Your task to perform on an android device: make emails show in primary in the gmail app Image 0: 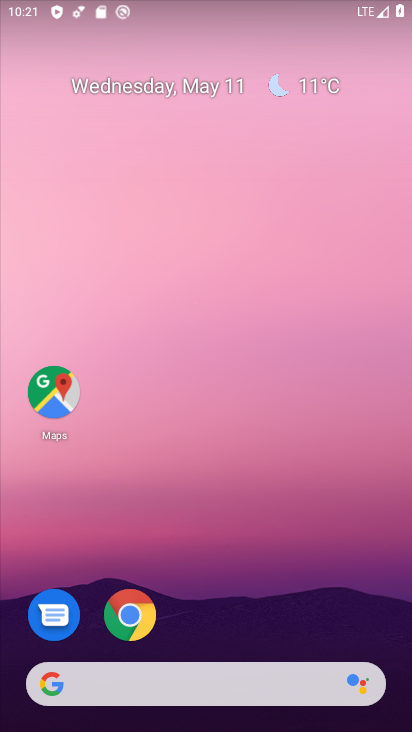
Step 0: drag from (230, 594) to (292, 51)
Your task to perform on an android device: make emails show in primary in the gmail app Image 1: 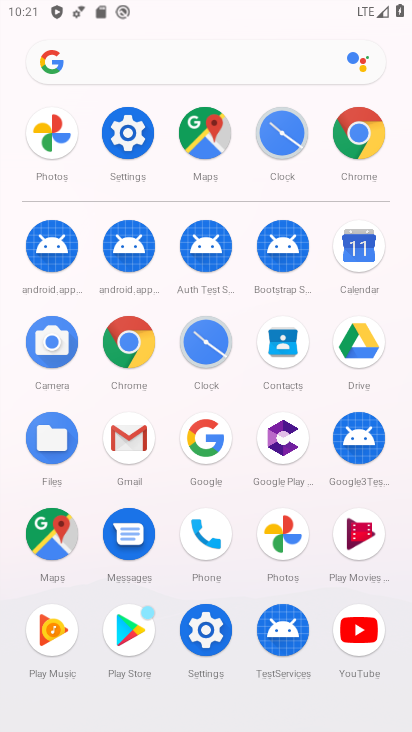
Step 1: click (131, 427)
Your task to perform on an android device: make emails show in primary in the gmail app Image 2: 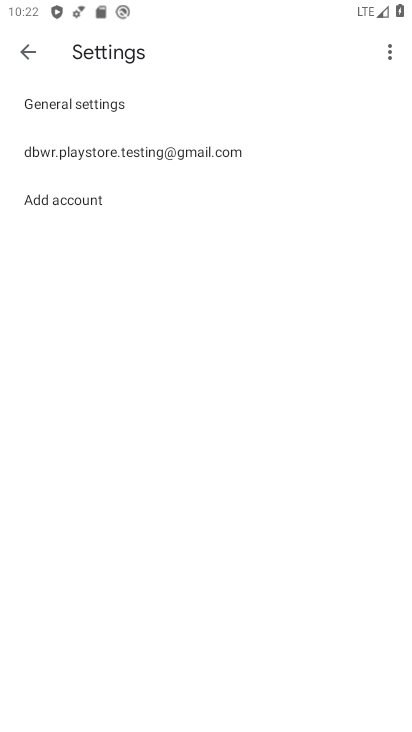
Step 2: click (69, 155)
Your task to perform on an android device: make emails show in primary in the gmail app Image 3: 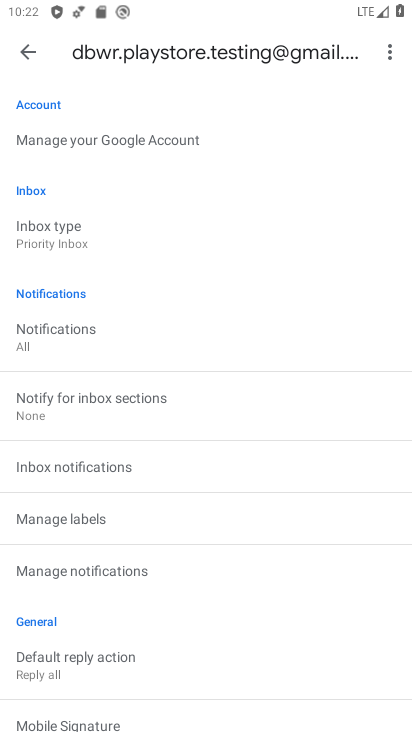
Step 3: click (61, 235)
Your task to perform on an android device: make emails show in primary in the gmail app Image 4: 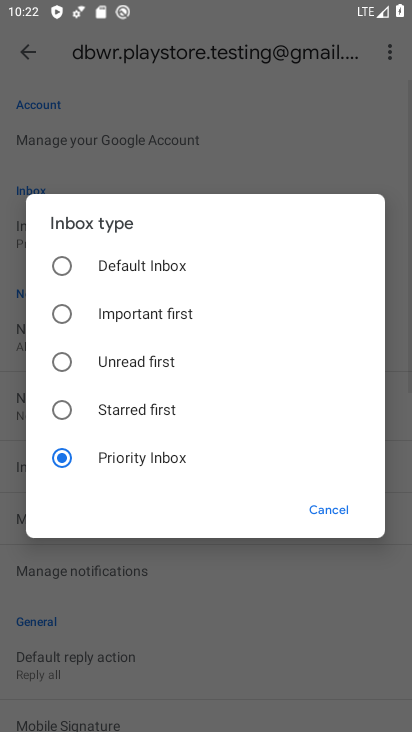
Step 4: click (121, 271)
Your task to perform on an android device: make emails show in primary in the gmail app Image 5: 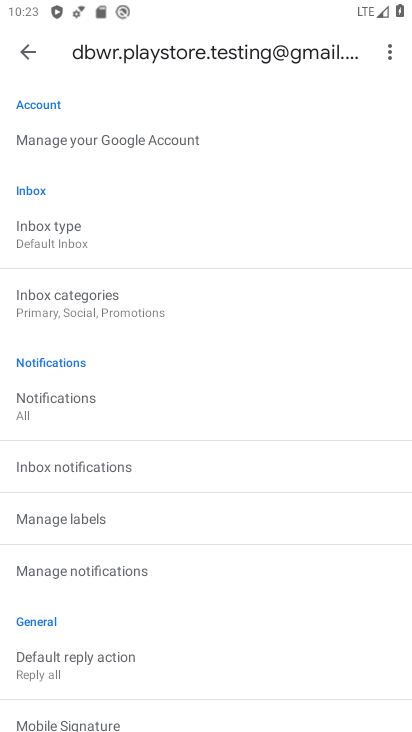
Step 5: click (89, 317)
Your task to perform on an android device: make emails show in primary in the gmail app Image 6: 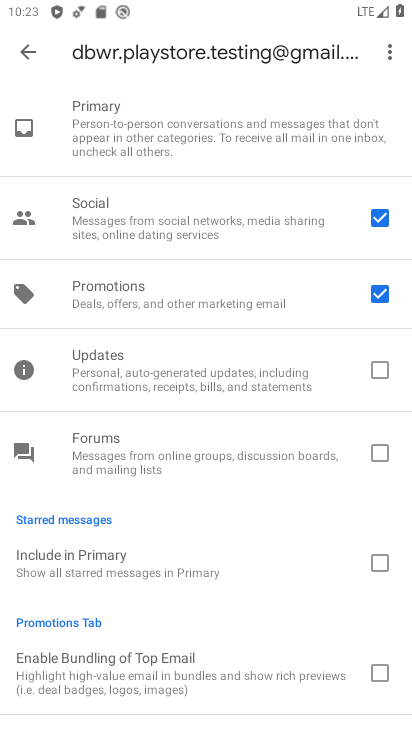
Step 6: task complete